Your task to perform on an android device: Go to ESPN.com Image 0: 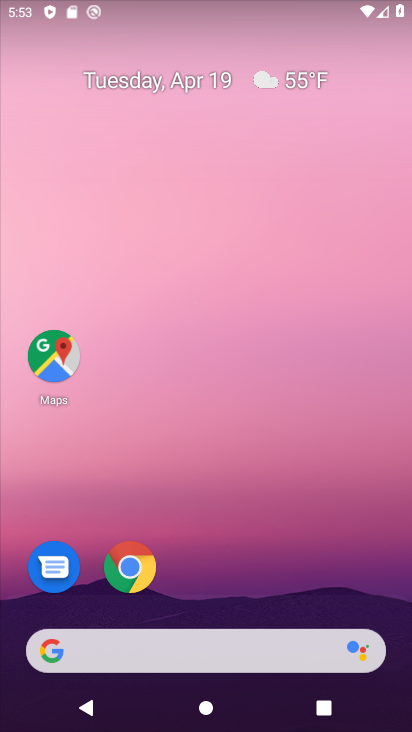
Step 0: click (141, 654)
Your task to perform on an android device: Go to ESPN.com Image 1: 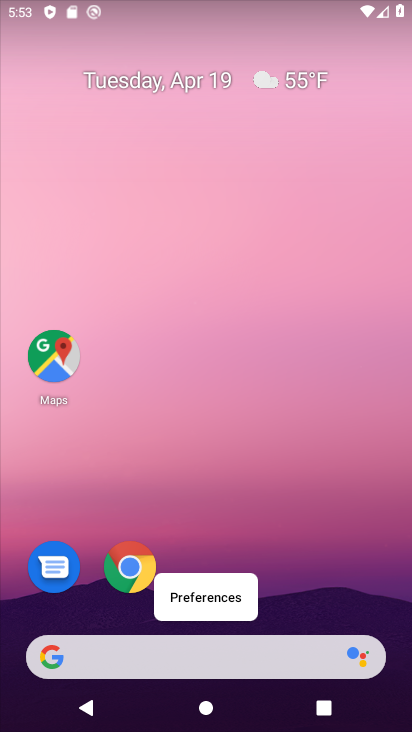
Step 1: click (142, 654)
Your task to perform on an android device: Go to ESPN.com Image 2: 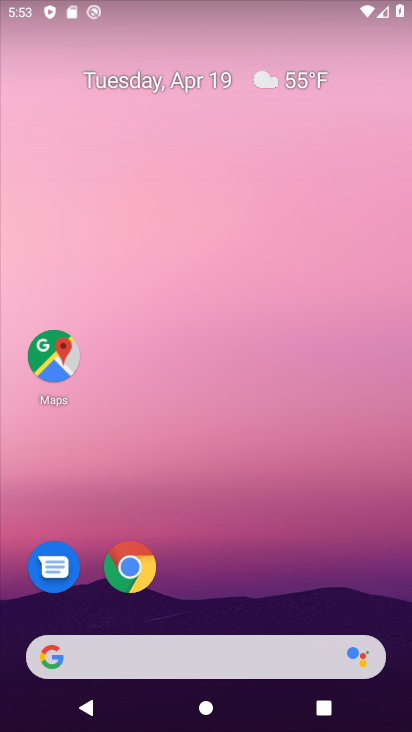
Step 2: click (142, 654)
Your task to perform on an android device: Go to ESPN.com Image 3: 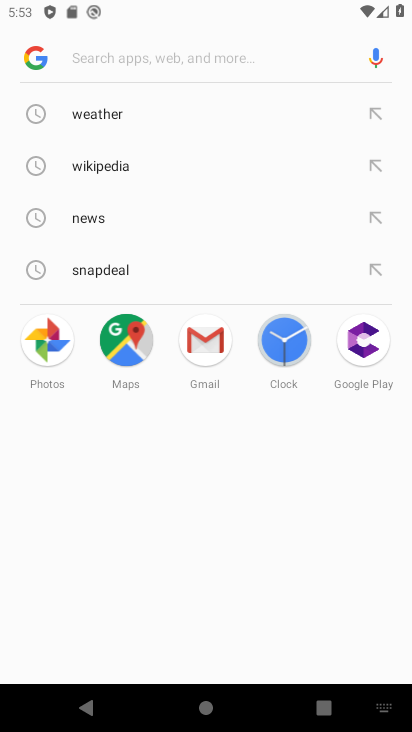
Step 3: type " ESPN.com"
Your task to perform on an android device: Go to ESPN.com Image 4: 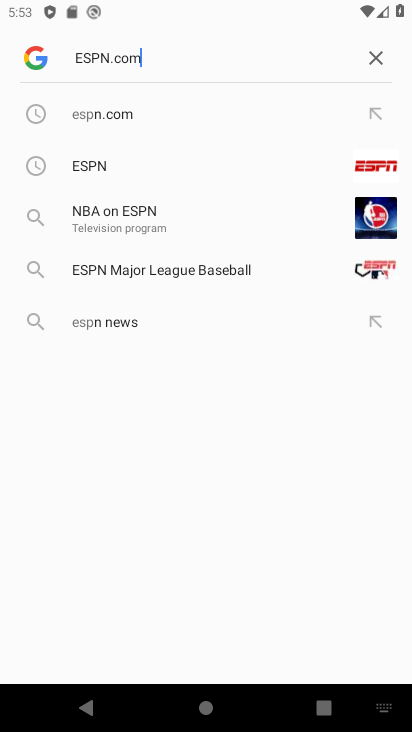
Step 4: type ""
Your task to perform on an android device: Go to ESPN.com Image 5: 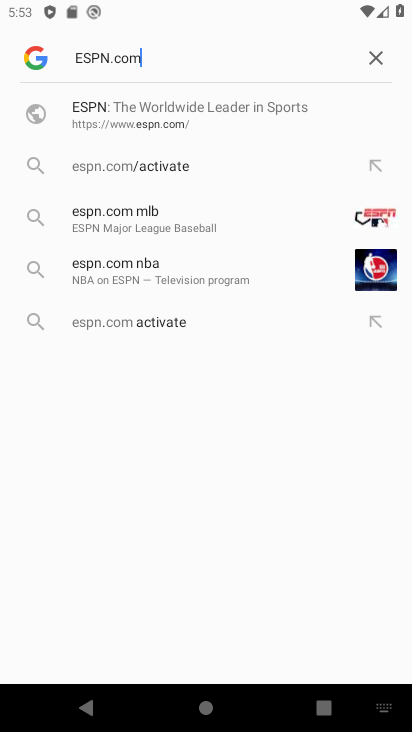
Step 5: click (257, 111)
Your task to perform on an android device: Go to ESPN.com Image 6: 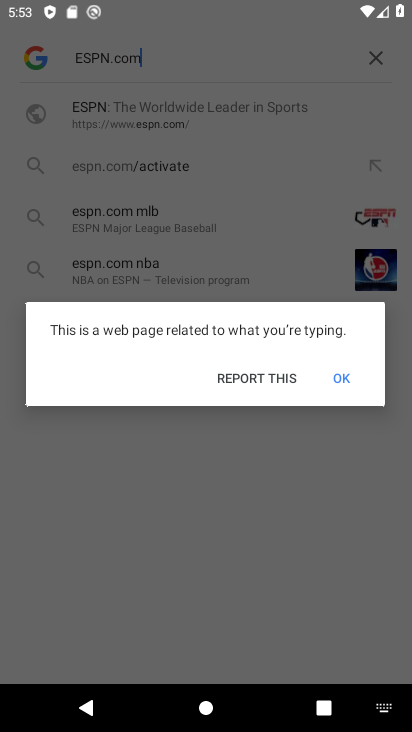
Step 6: click (346, 368)
Your task to perform on an android device: Go to ESPN.com Image 7: 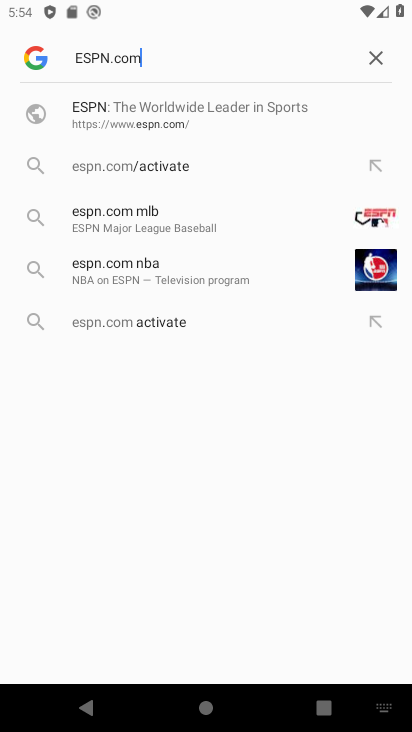
Step 7: click (160, 115)
Your task to perform on an android device: Go to ESPN.com Image 8: 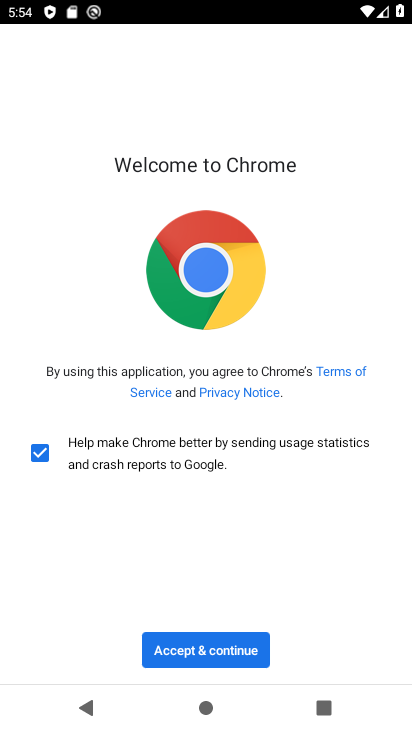
Step 8: click (194, 646)
Your task to perform on an android device: Go to ESPN.com Image 9: 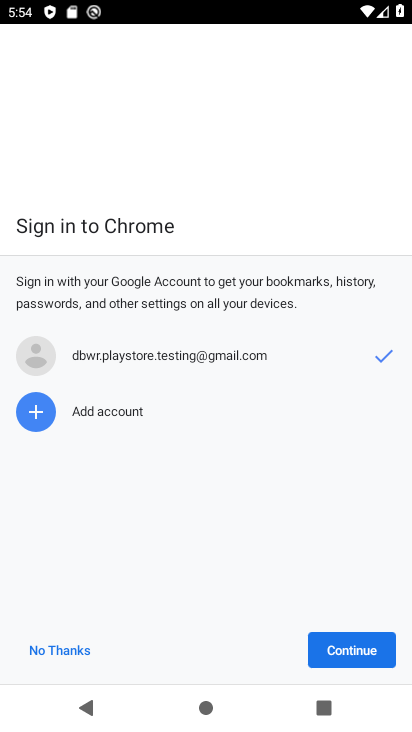
Step 9: click (340, 642)
Your task to perform on an android device: Go to ESPN.com Image 10: 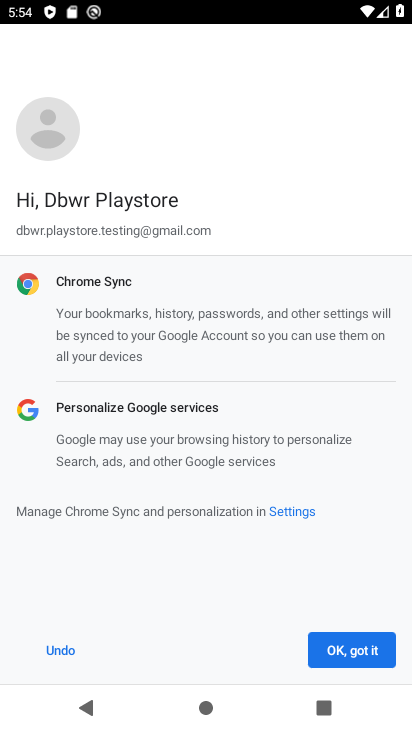
Step 10: click (330, 647)
Your task to perform on an android device: Go to ESPN.com Image 11: 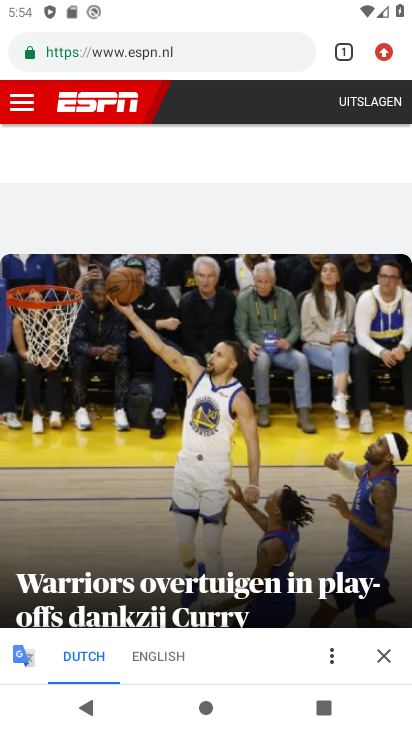
Step 11: task complete